Your task to perform on an android device: Open Chrome and go to the settings page Image 0: 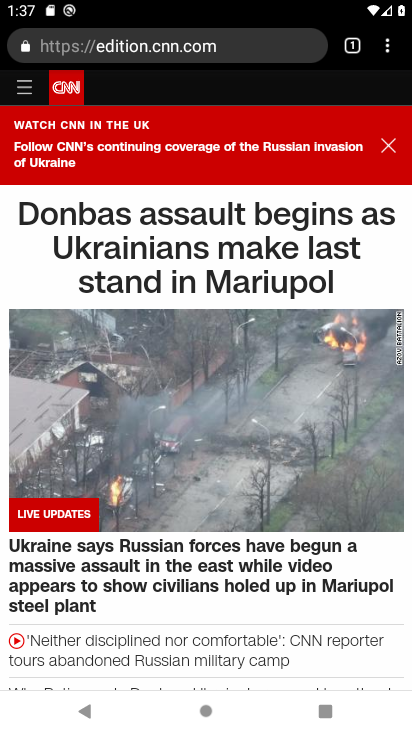
Step 0: click (392, 50)
Your task to perform on an android device: Open Chrome and go to the settings page Image 1: 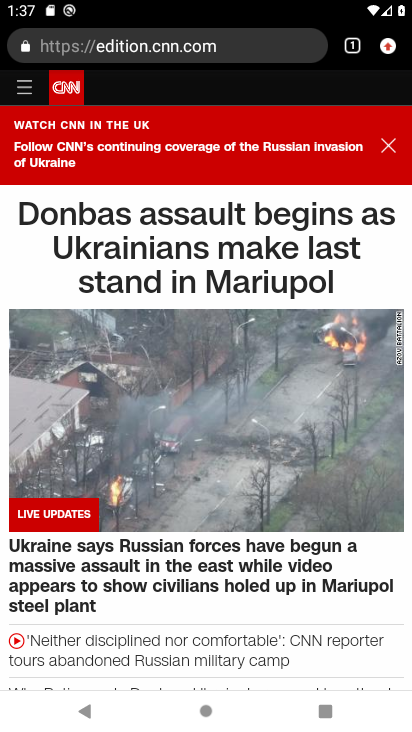
Step 1: click (389, 50)
Your task to perform on an android device: Open Chrome and go to the settings page Image 2: 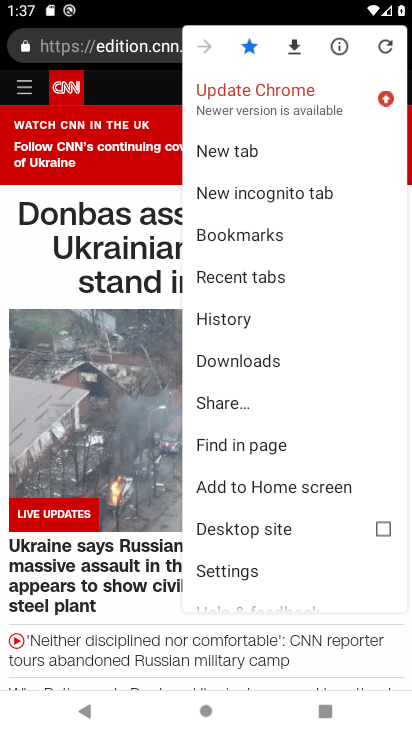
Step 2: click (242, 570)
Your task to perform on an android device: Open Chrome and go to the settings page Image 3: 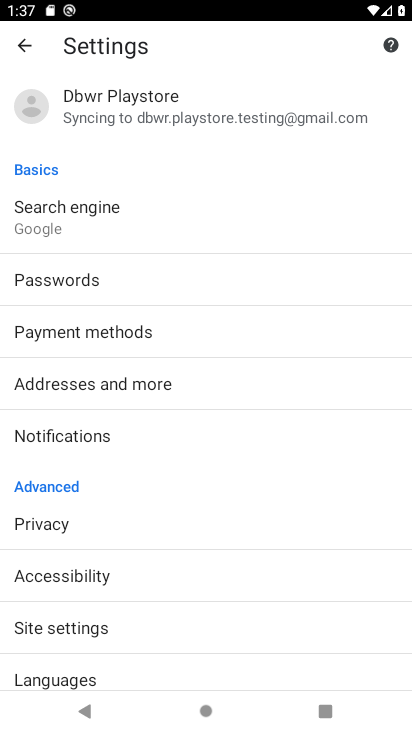
Step 3: task complete